Your task to perform on an android device: What's on my calendar tomorrow? Image 0: 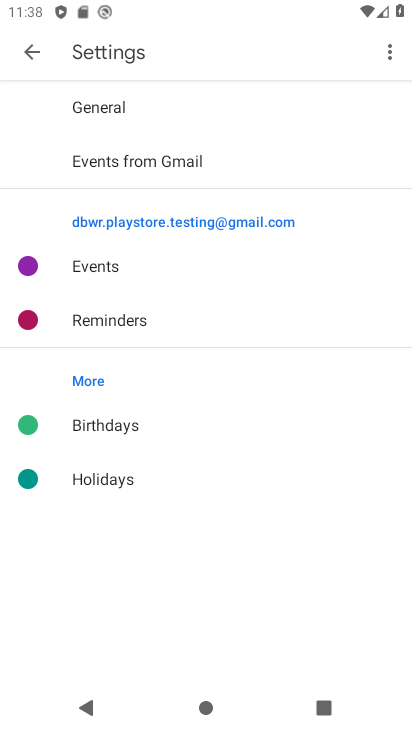
Step 0: press home button
Your task to perform on an android device: What's on my calendar tomorrow? Image 1: 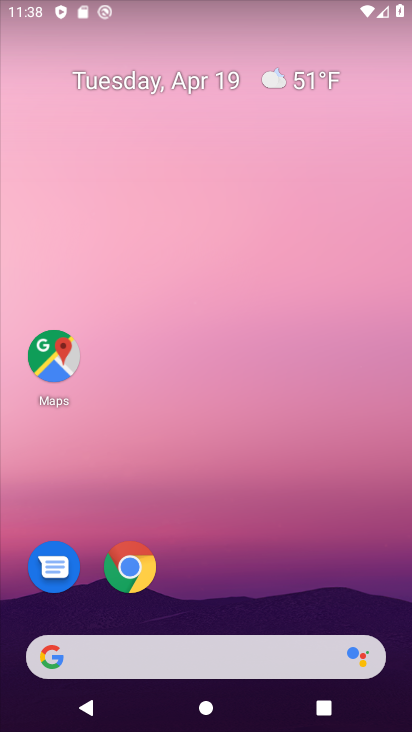
Step 1: drag from (204, 473) to (303, 31)
Your task to perform on an android device: What's on my calendar tomorrow? Image 2: 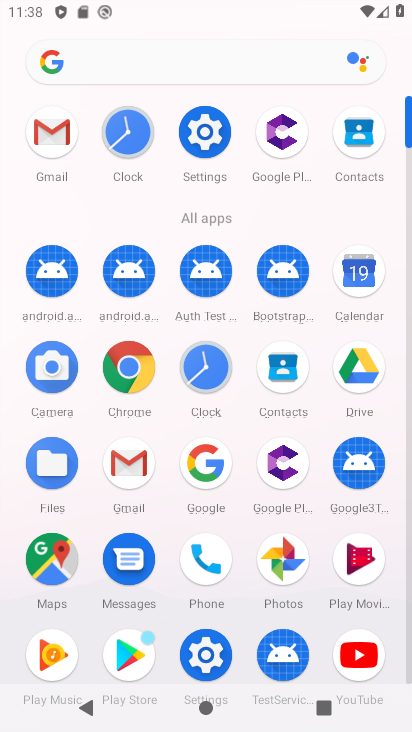
Step 2: click (363, 274)
Your task to perform on an android device: What's on my calendar tomorrow? Image 3: 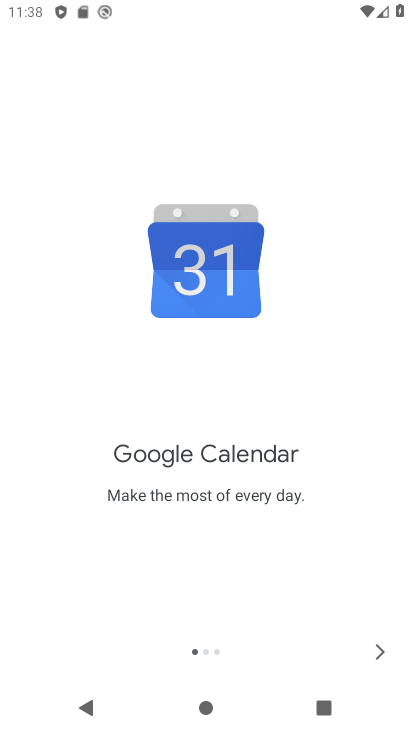
Step 3: click (372, 645)
Your task to perform on an android device: What's on my calendar tomorrow? Image 4: 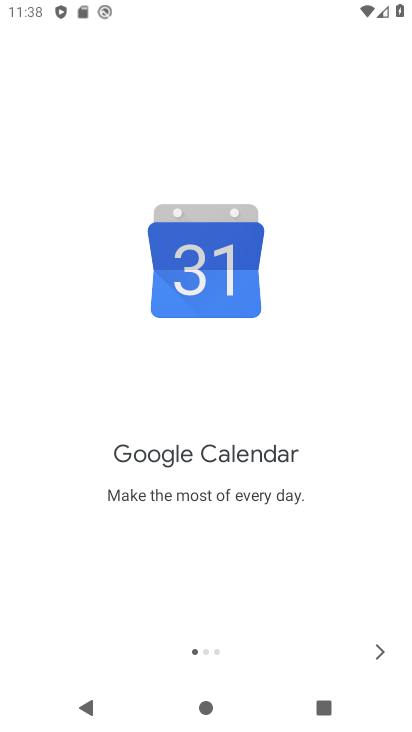
Step 4: click (372, 645)
Your task to perform on an android device: What's on my calendar tomorrow? Image 5: 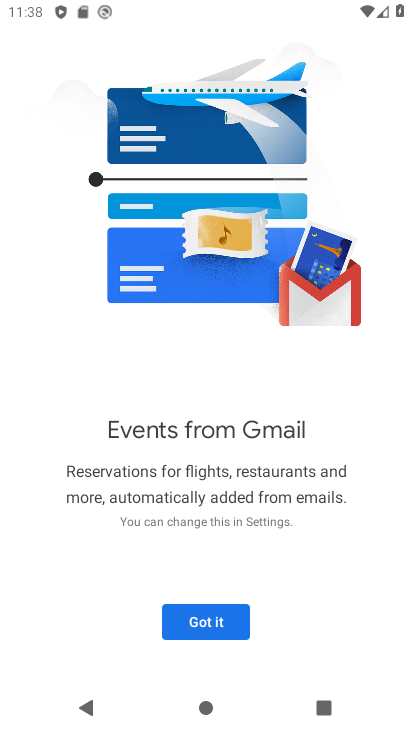
Step 5: click (372, 644)
Your task to perform on an android device: What's on my calendar tomorrow? Image 6: 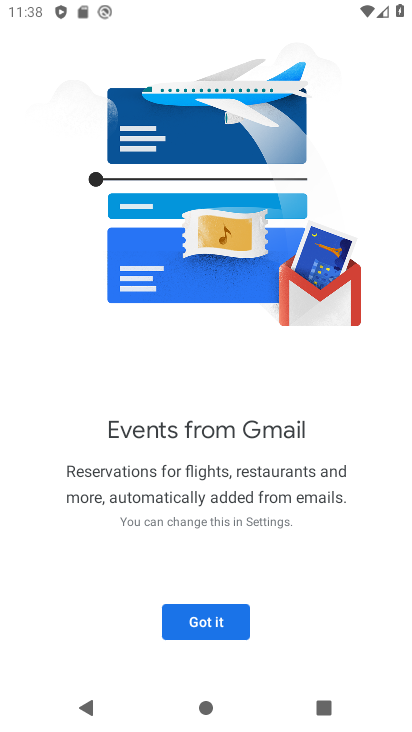
Step 6: click (230, 619)
Your task to perform on an android device: What's on my calendar tomorrow? Image 7: 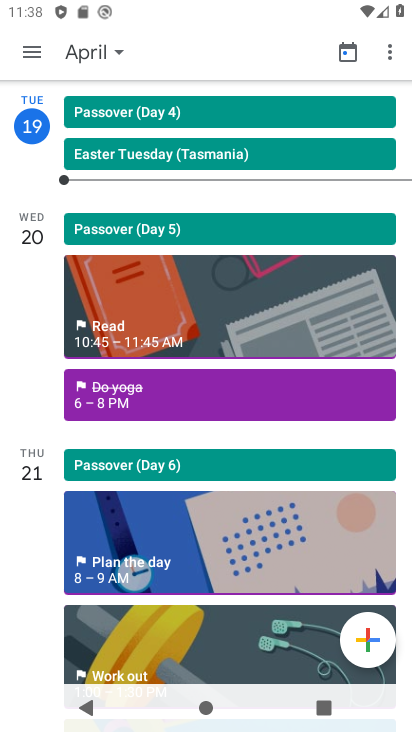
Step 7: click (210, 624)
Your task to perform on an android device: What's on my calendar tomorrow? Image 8: 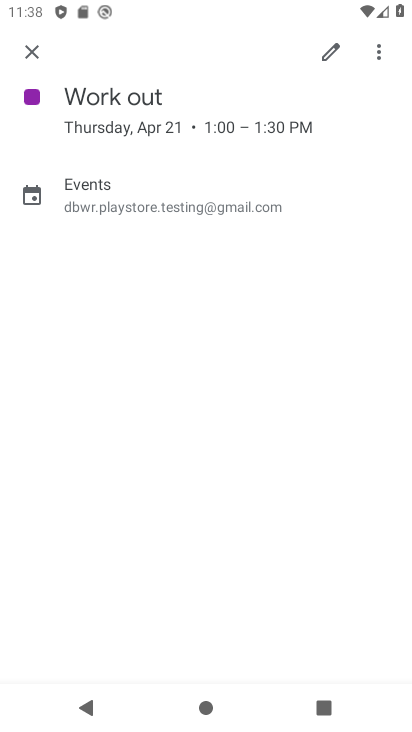
Step 8: click (30, 48)
Your task to perform on an android device: What's on my calendar tomorrow? Image 9: 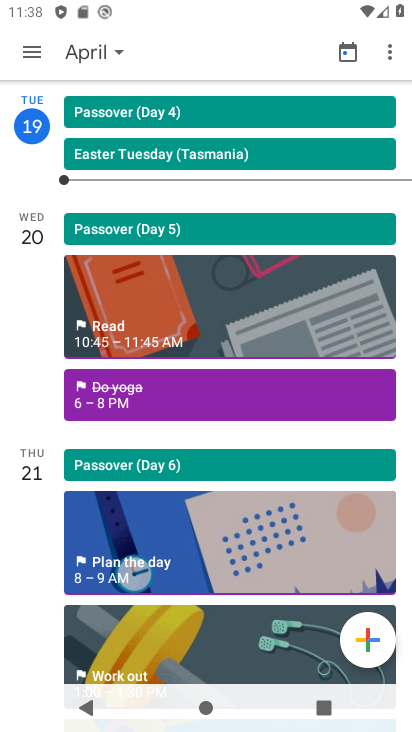
Step 9: click (27, 44)
Your task to perform on an android device: What's on my calendar tomorrow? Image 10: 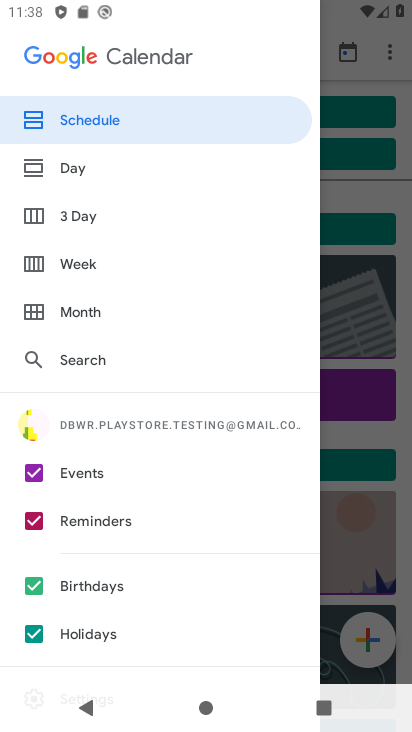
Step 10: click (42, 217)
Your task to perform on an android device: What's on my calendar tomorrow? Image 11: 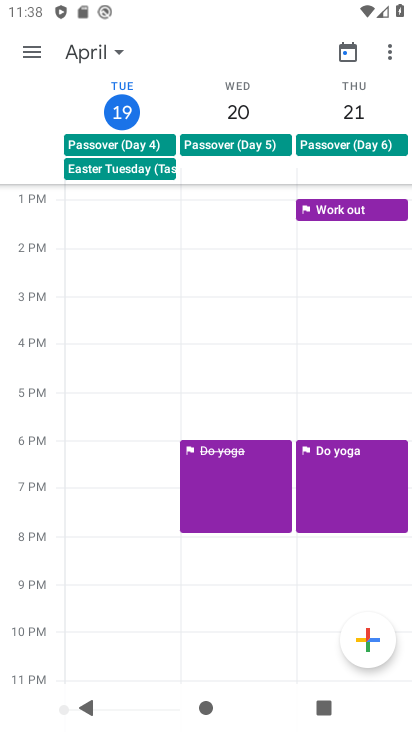
Step 11: click (34, 235)
Your task to perform on an android device: What's on my calendar tomorrow? Image 12: 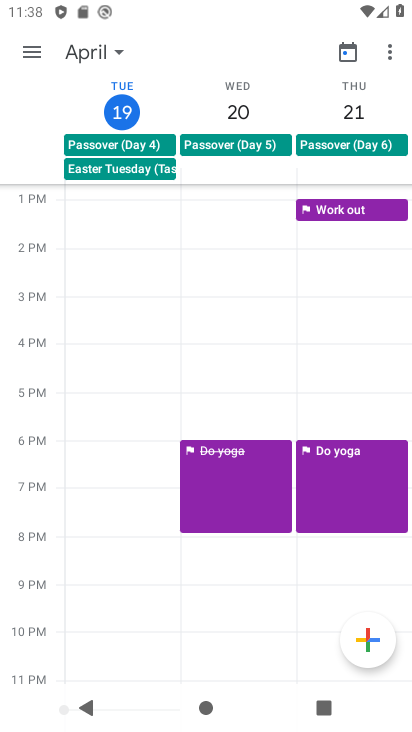
Step 12: click (34, 235)
Your task to perform on an android device: What's on my calendar tomorrow? Image 13: 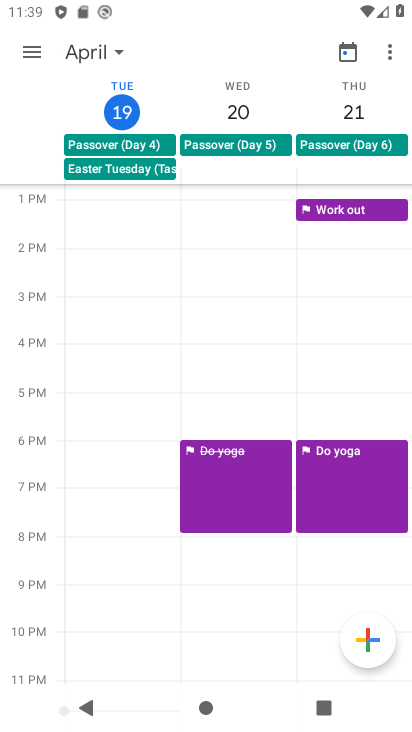
Step 13: task complete